Your task to perform on an android device: Turn off the flashlight Image 0: 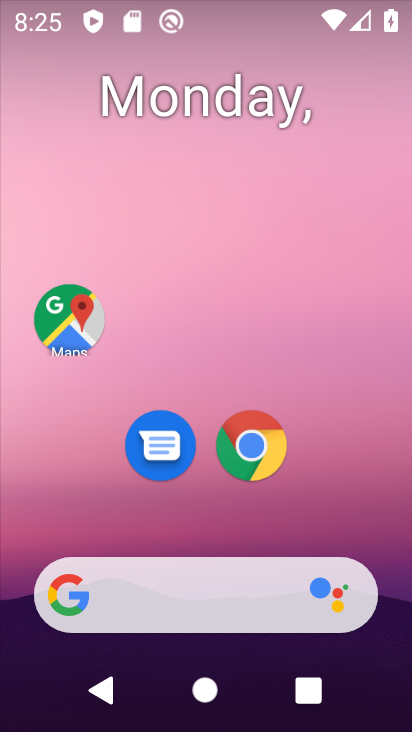
Step 0: drag from (323, 9) to (221, 692)
Your task to perform on an android device: Turn off the flashlight Image 1: 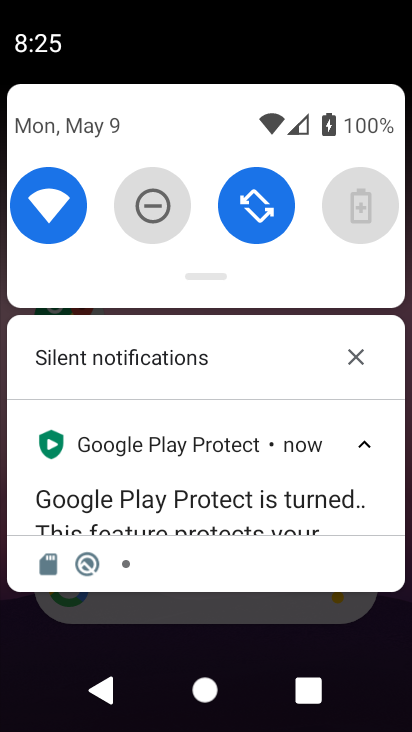
Step 1: task complete